Your task to perform on an android device: Is it going to rain today? Image 0: 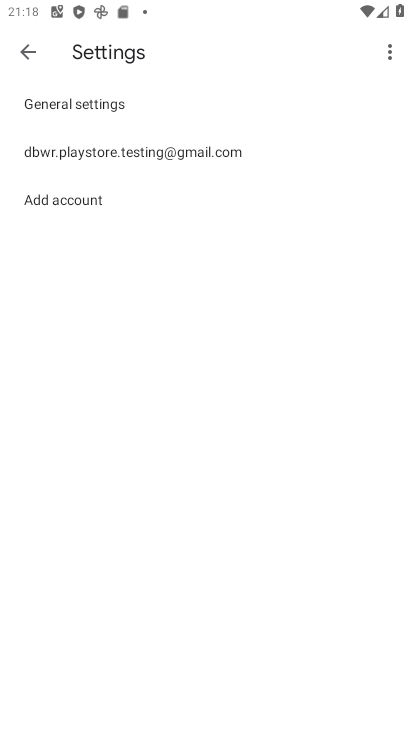
Step 0: press home button
Your task to perform on an android device: Is it going to rain today? Image 1: 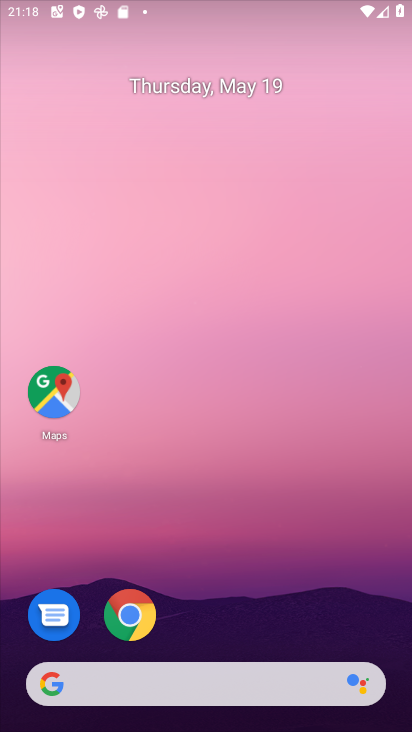
Step 1: drag from (250, 607) to (292, 93)
Your task to perform on an android device: Is it going to rain today? Image 2: 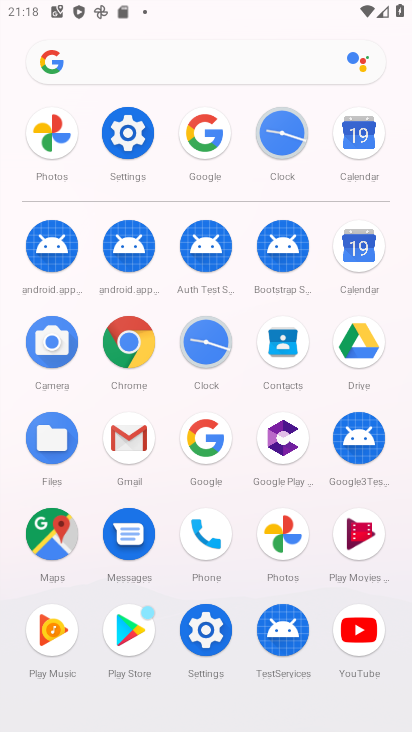
Step 2: click (200, 142)
Your task to perform on an android device: Is it going to rain today? Image 3: 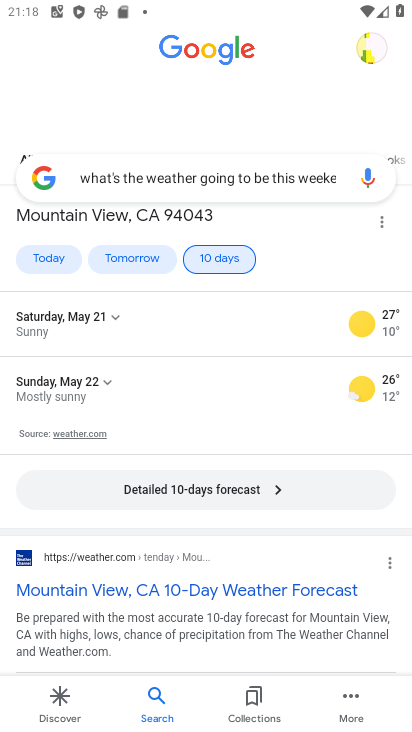
Step 3: click (321, 175)
Your task to perform on an android device: Is it going to rain today? Image 4: 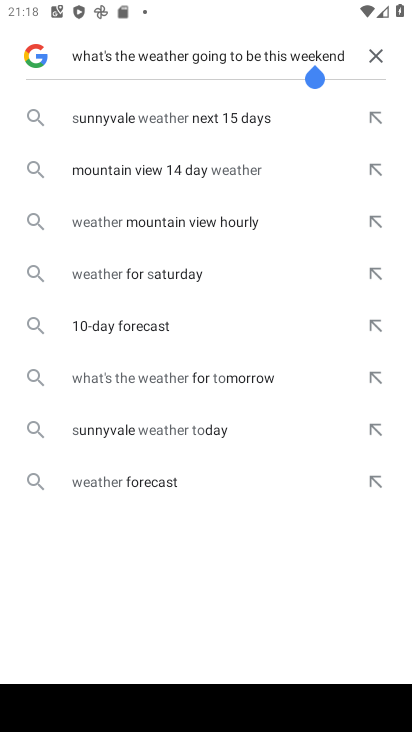
Step 4: click (376, 58)
Your task to perform on an android device: Is it going to rain today? Image 5: 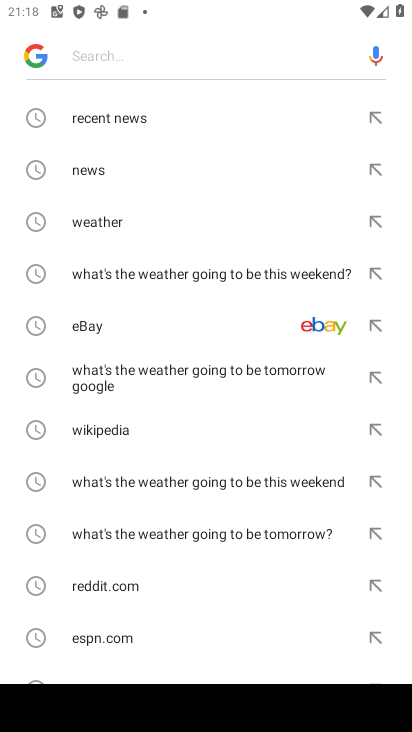
Step 5: type "going to rain today"
Your task to perform on an android device: Is it going to rain today? Image 6: 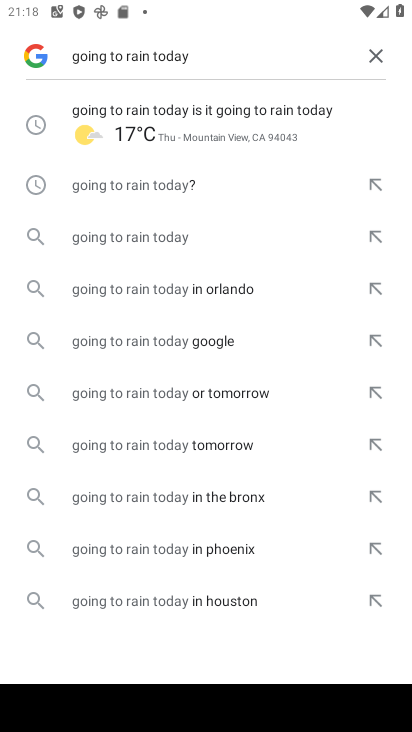
Step 6: click (164, 125)
Your task to perform on an android device: Is it going to rain today? Image 7: 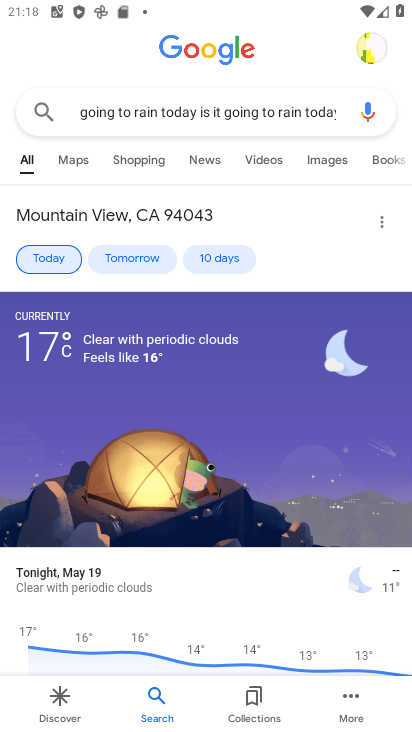
Step 7: task complete